Your task to perform on an android device: Do I have any events tomorrow? Image 0: 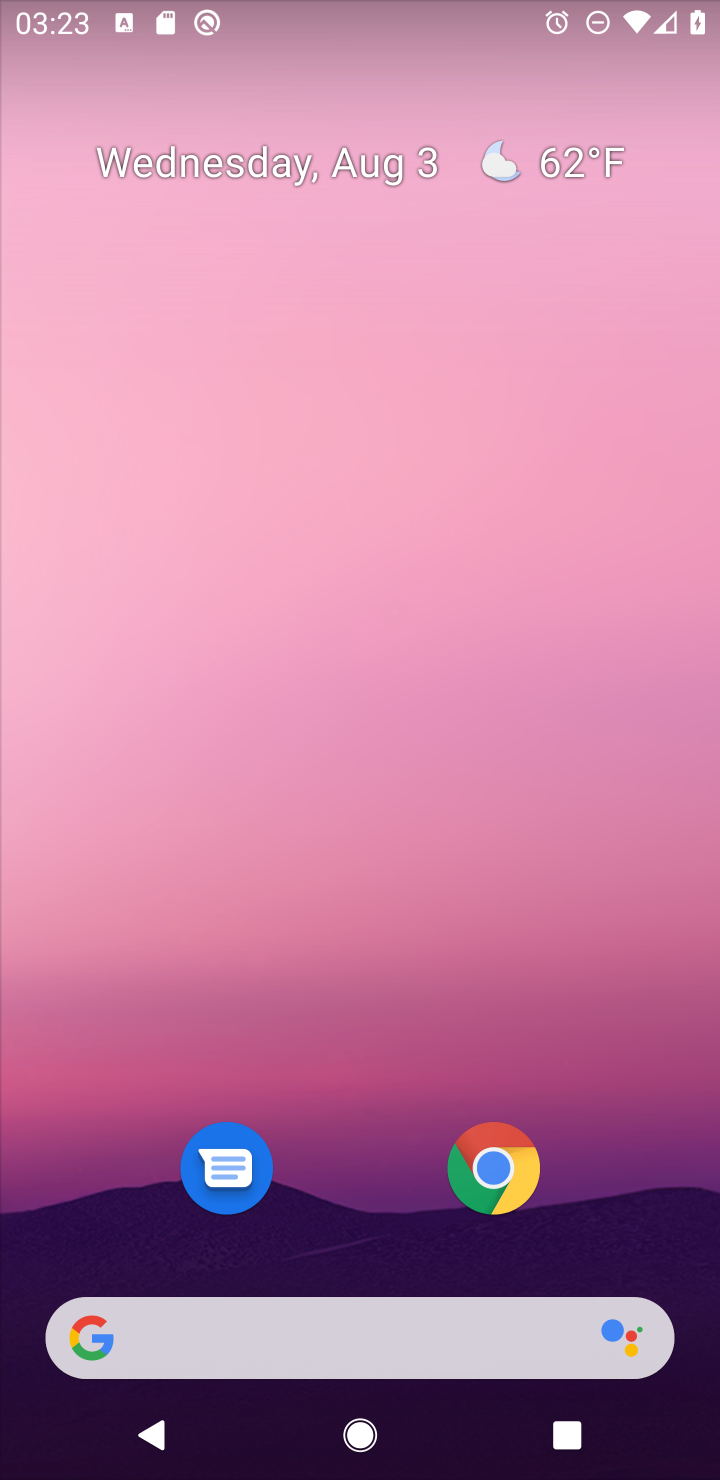
Step 0: drag from (676, 1223) to (575, 368)
Your task to perform on an android device: Do I have any events tomorrow? Image 1: 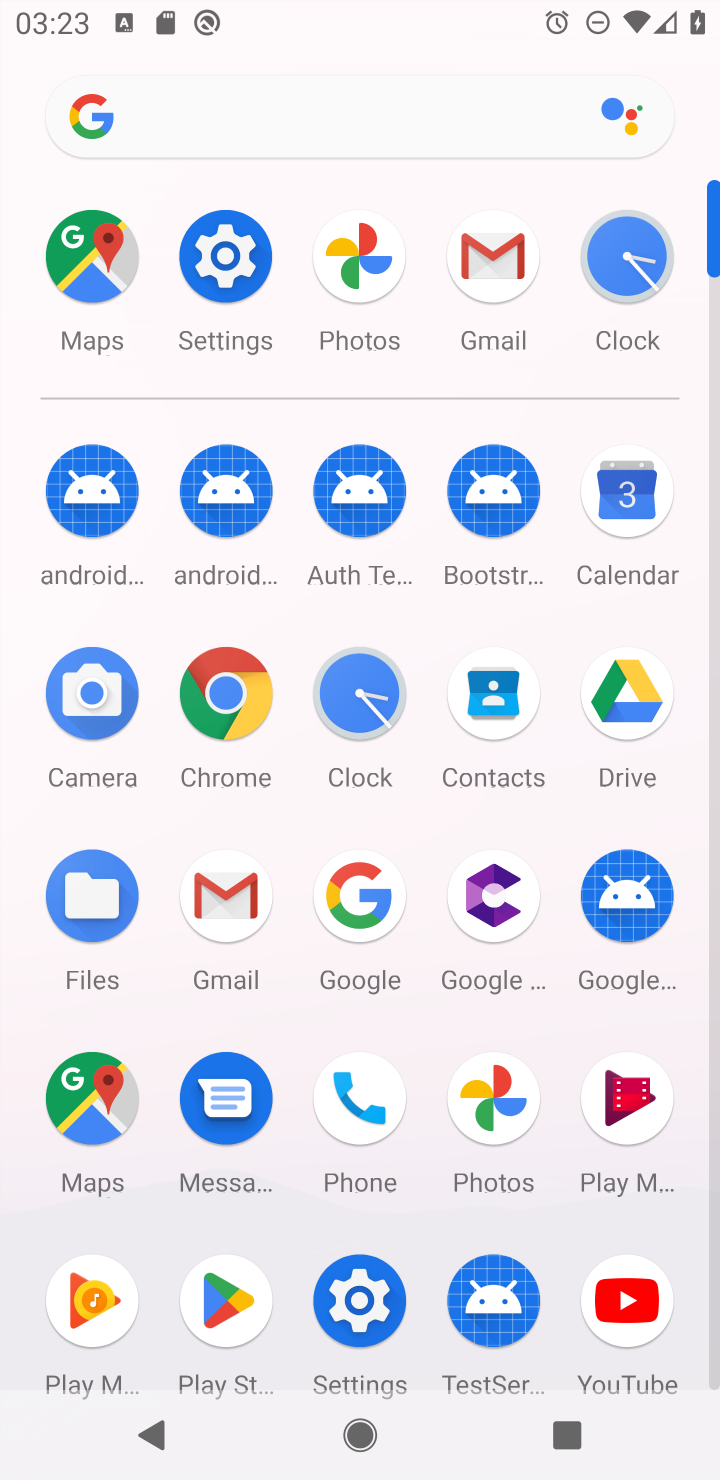
Step 1: click (632, 496)
Your task to perform on an android device: Do I have any events tomorrow? Image 2: 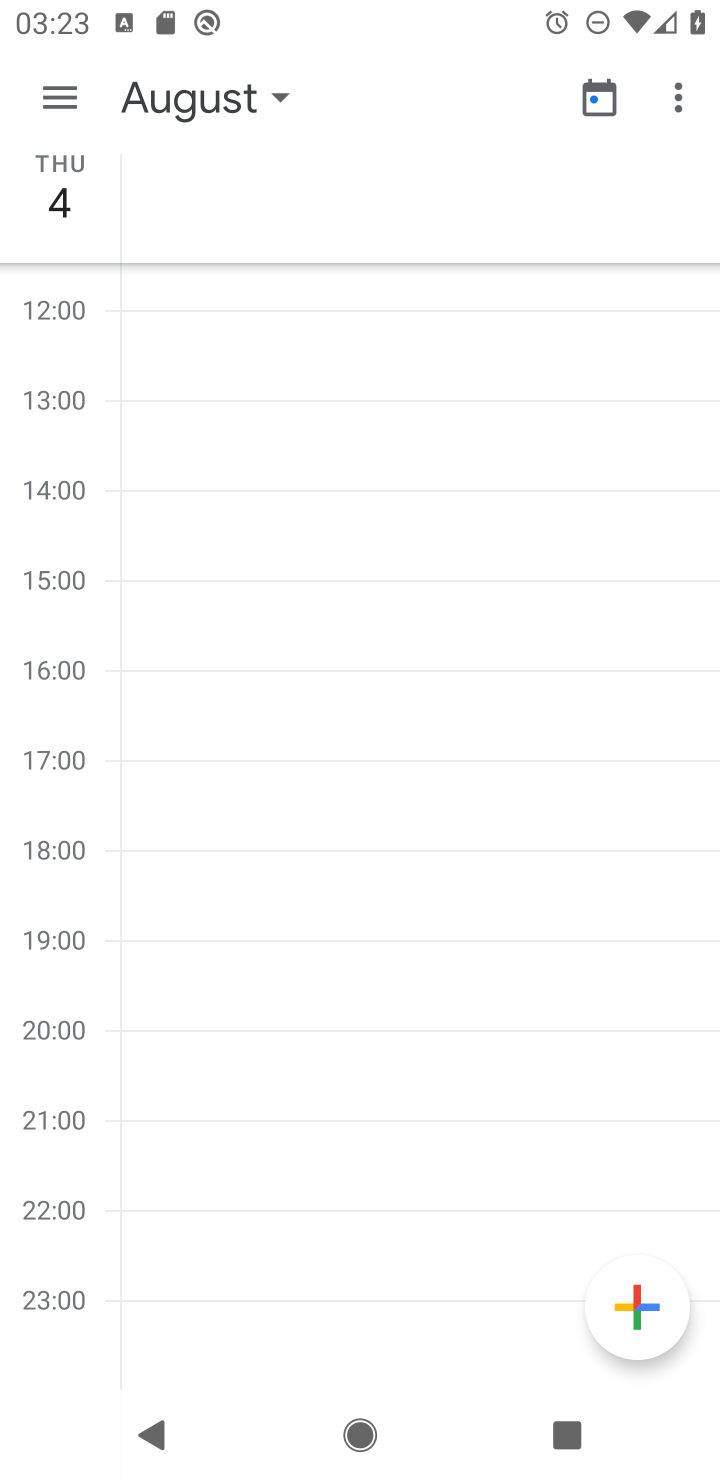
Step 2: click (276, 94)
Your task to perform on an android device: Do I have any events tomorrow? Image 3: 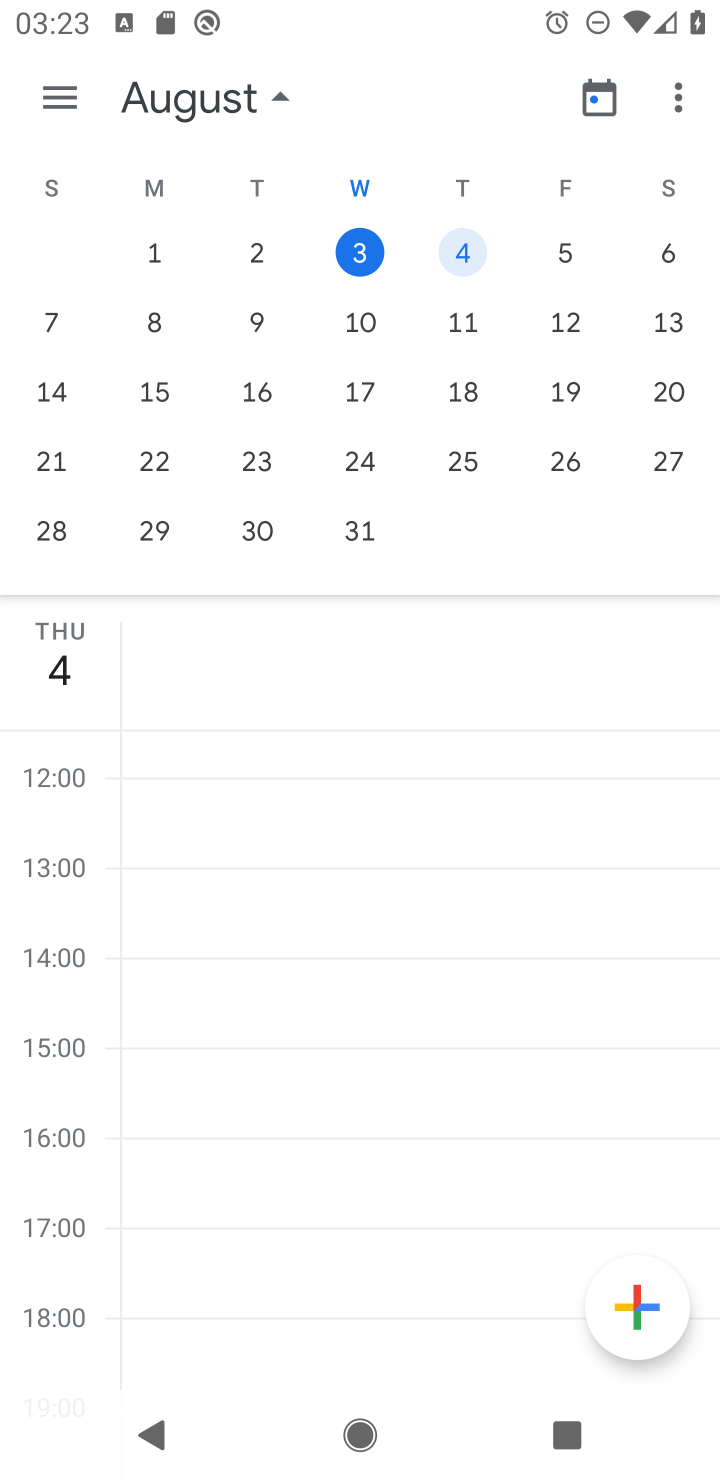
Step 3: click (454, 256)
Your task to perform on an android device: Do I have any events tomorrow? Image 4: 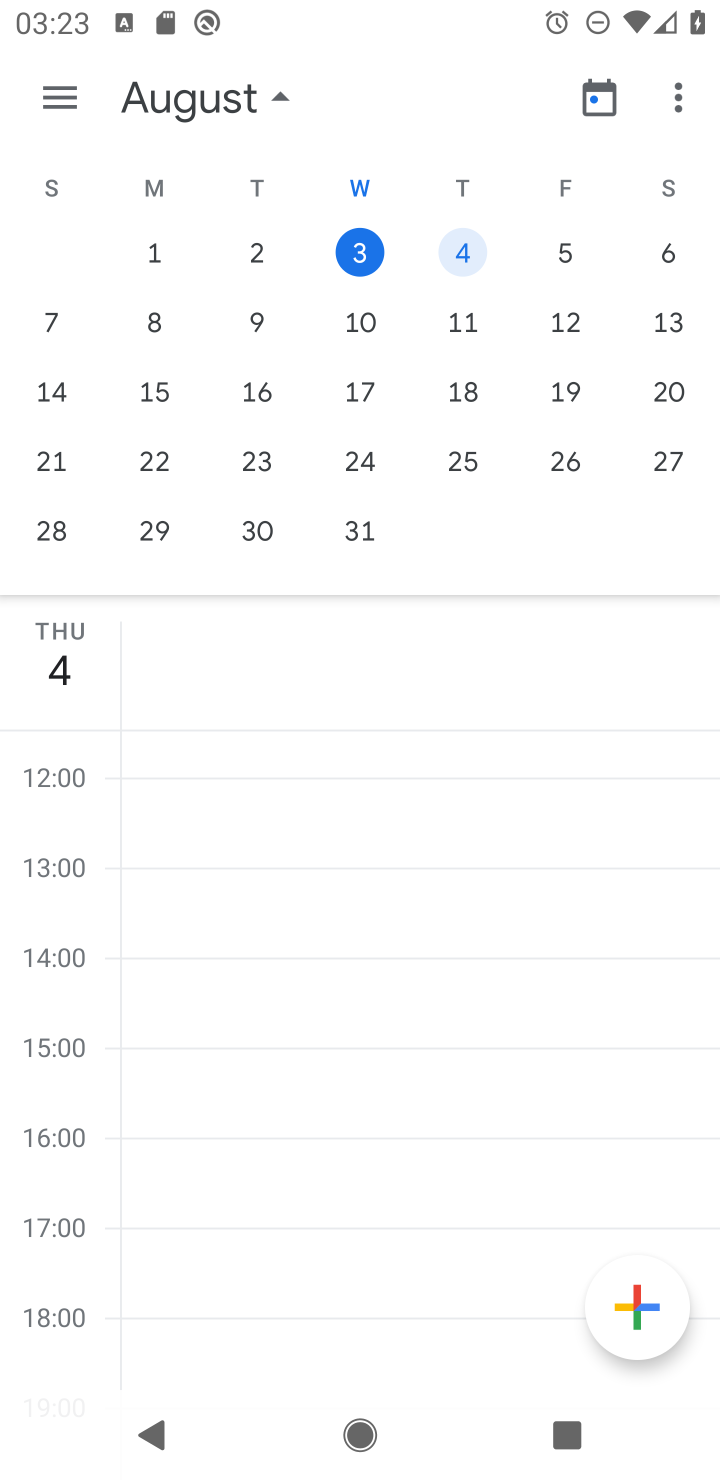
Step 4: task complete